Your task to perform on an android device: Empty the shopping cart on ebay. Image 0: 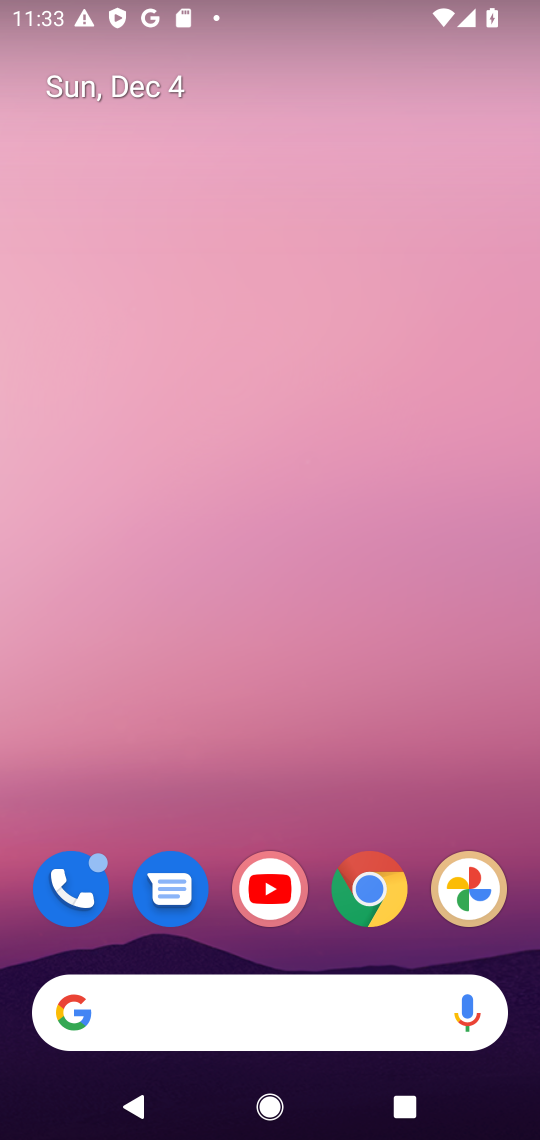
Step 0: click (348, 887)
Your task to perform on an android device: Empty the shopping cart on ebay. Image 1: 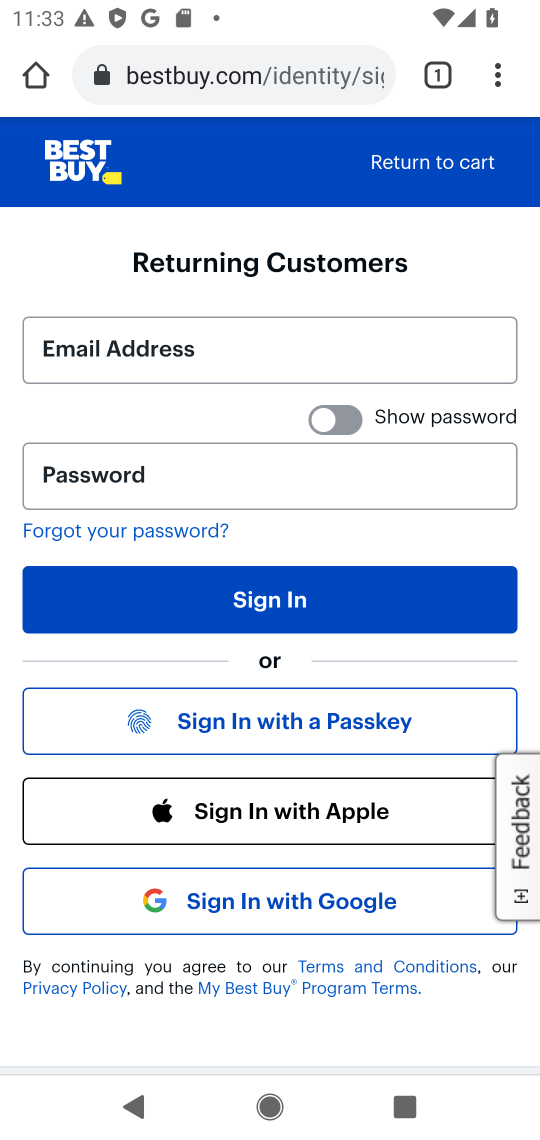
Step 1: click (292, 84)
Your task to perform on an android device: Empty the shopping cart on ebay. Image 2: 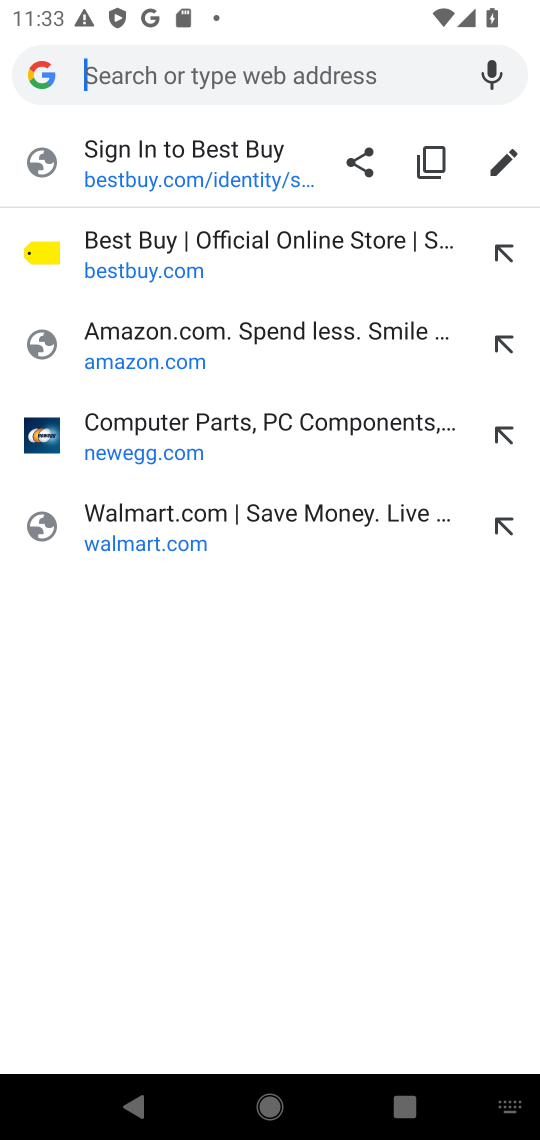
Step 2: type "ebay"
Your task to perform on an android device: Empty the shopping cart on ebay. Image 3: 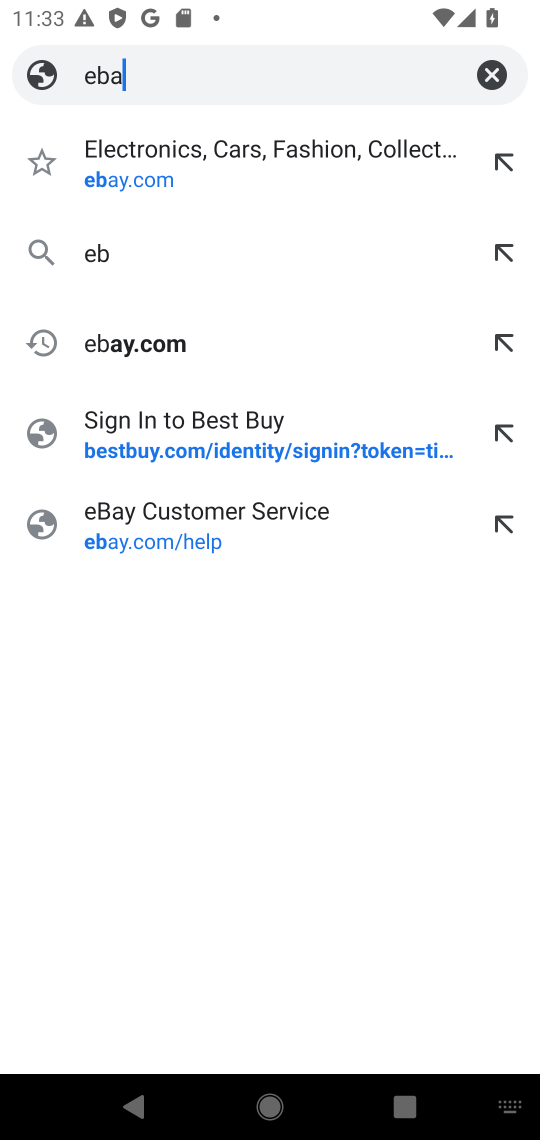
Step 3: press enter
Your task to perform on an android device: Empty the shopping cart on ebay. Image 4: 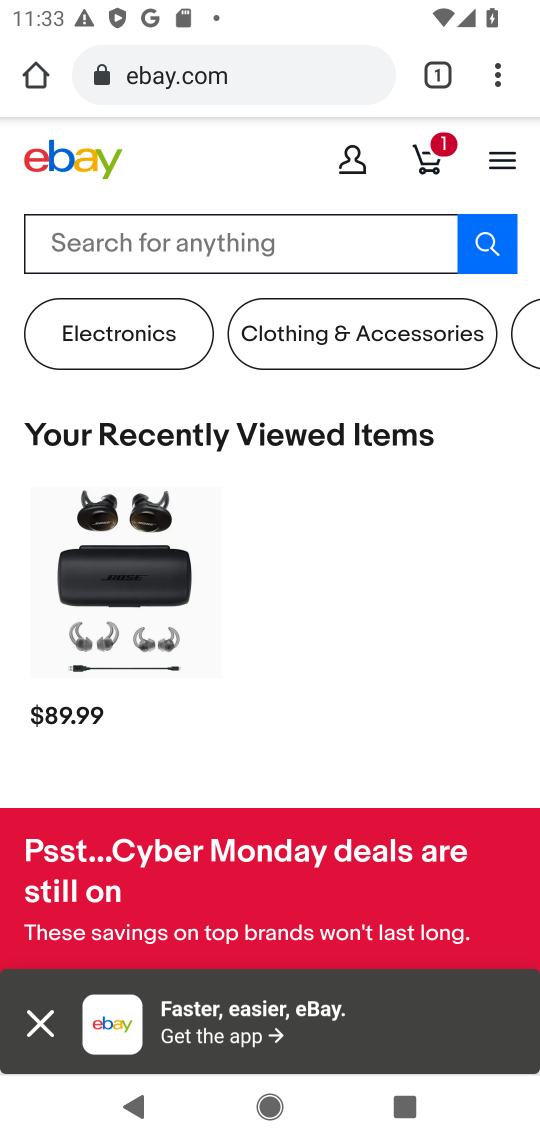
Step 4: click (423, 157)
Your task to perform on an android device: Empty the shopping cart on ebay. Image 5: 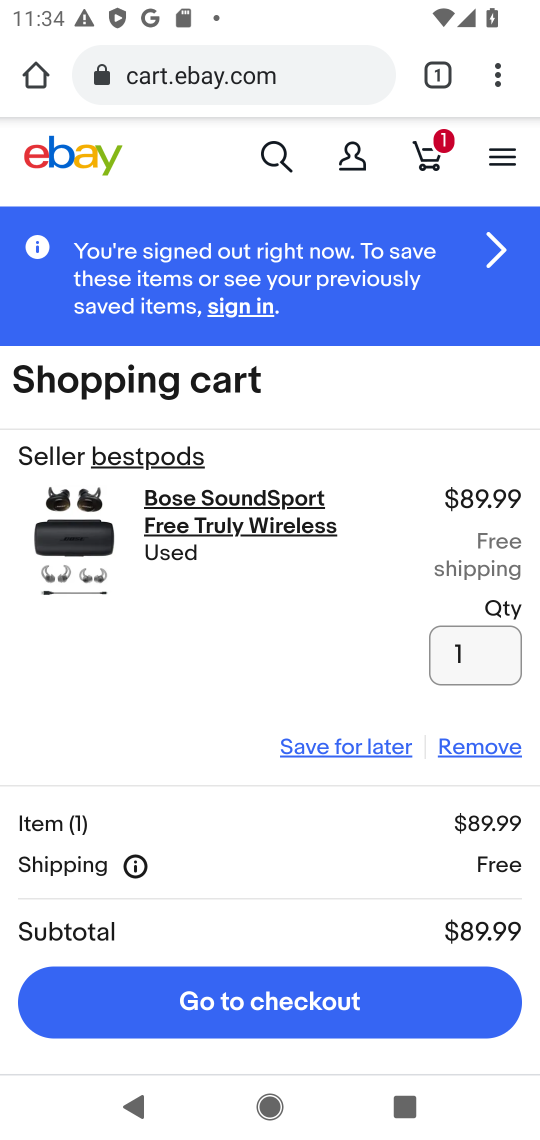
Step 5: click (485, 741)
Your task to perform on an android device: Empty the shopping cart on ebay. Image 6: 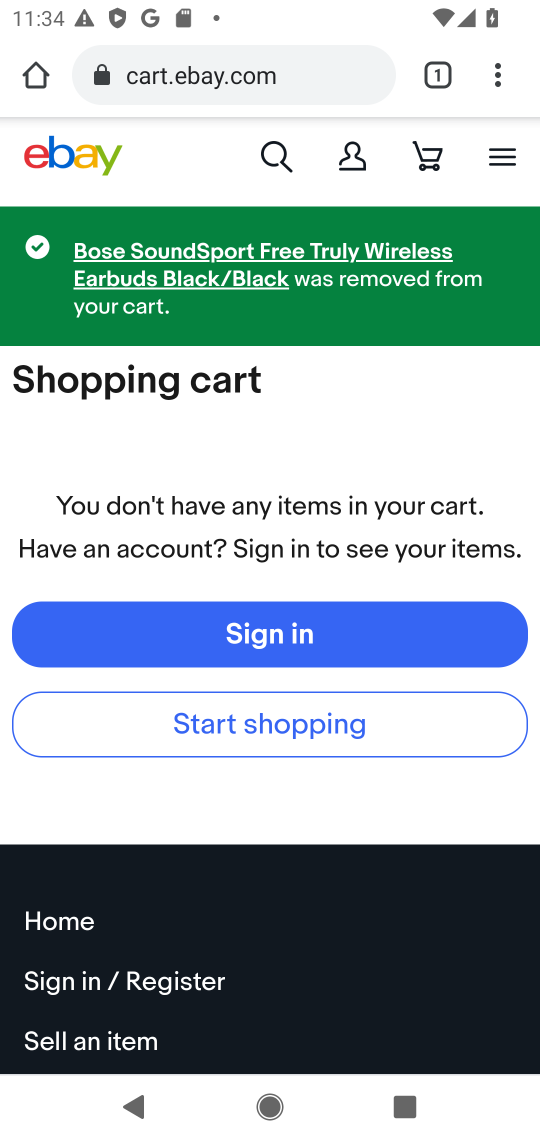
Step 6: task complete